Your task to perform on an android device: Open network settings Image 0: 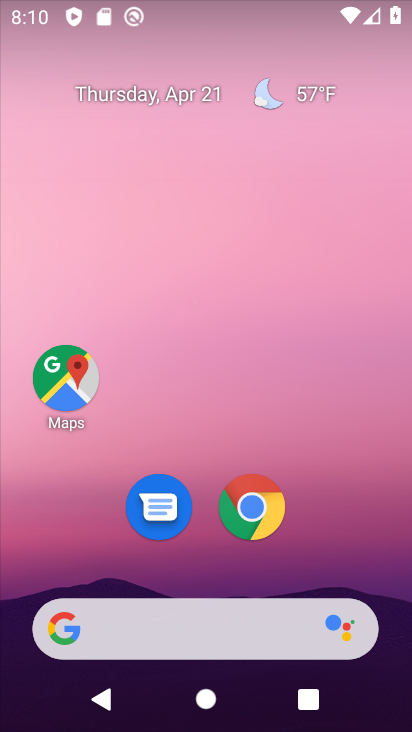
Step 0: drag from (343, 520) to (302, 4)
Your task to perform on an android device: Open network settings Image 1: 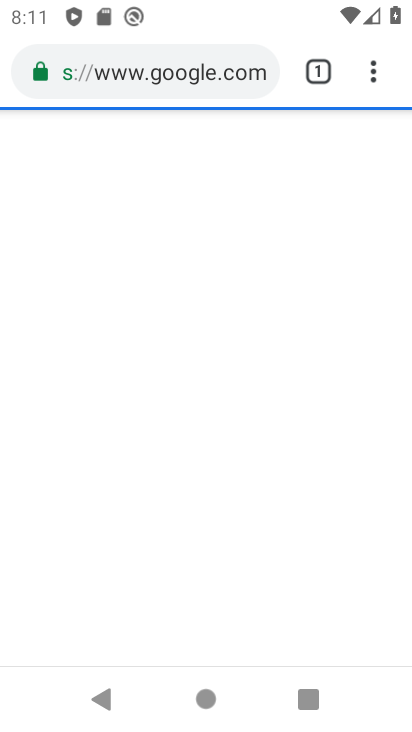
Step 1: press home button
Your task to perform on an android device: Open network settings Image 2: 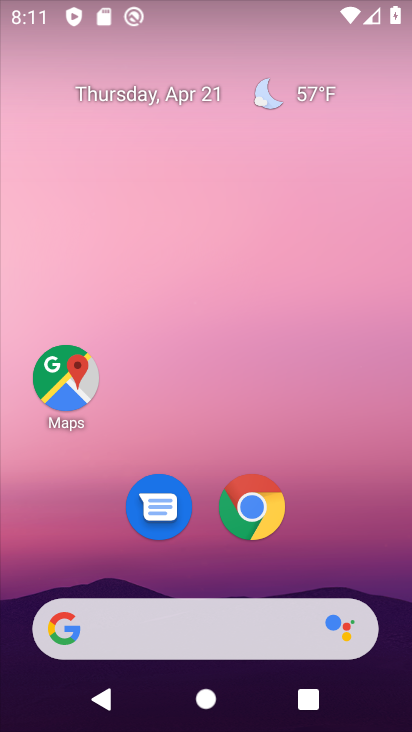
Step 2: drag from (306, 507) to (239, 14)
Your task to perform on an android device: Open network settings Image 3: 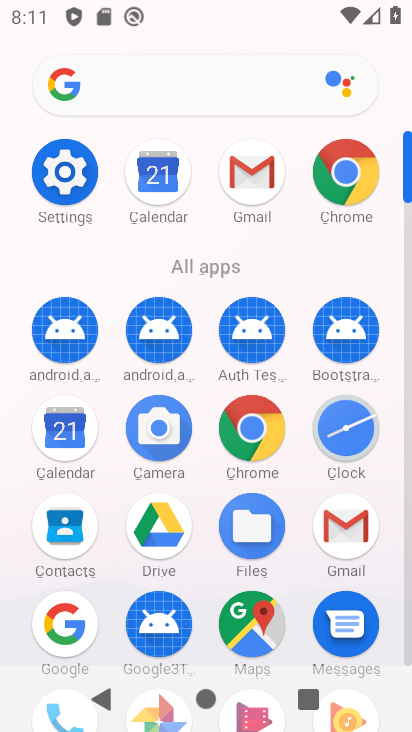
Step 3: click (46, 185)
Your task to perform on an android device: Open network settings Image 4: 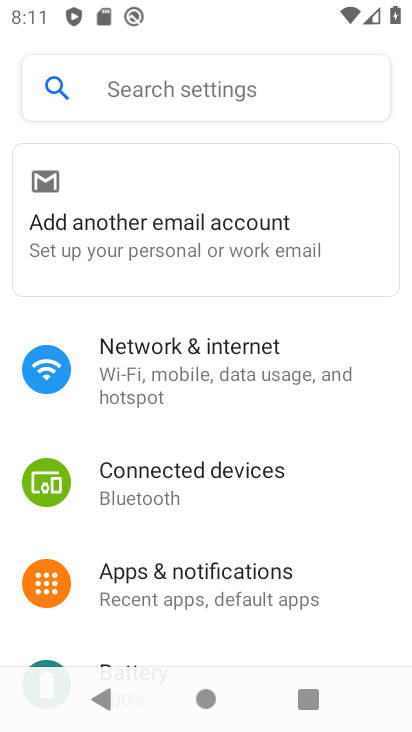
Step 4: click (214, 384)
Your task to perform on an android device: Open network settings Image 5: 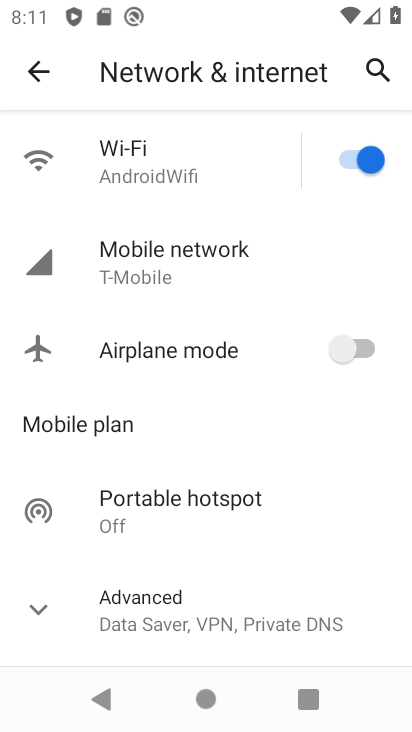
Step 5: task complete